Your task to perform on an android device: snooze an email in the gmail app Image 0: 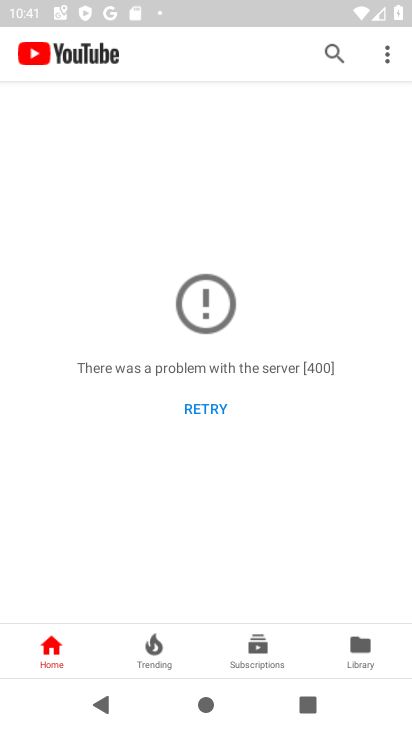
Step 0: press home button
Your task to perform on an android device: snooze an email in the gmail app Image 1: 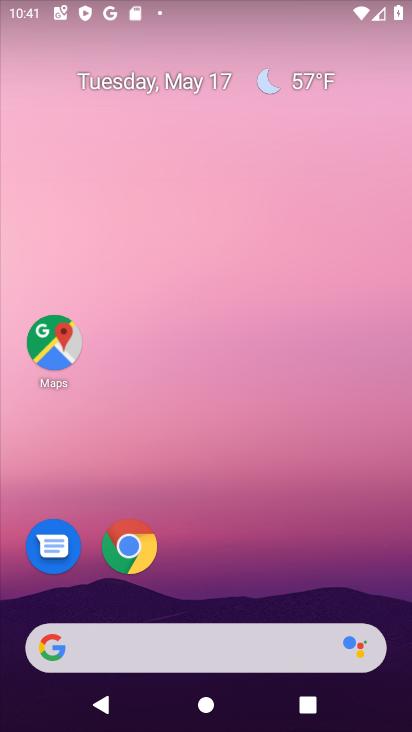
Step 1: drag from (172, 619) to (237, 90)
Your task to perform on an android device: snooze an email in the gmail app Image 2: 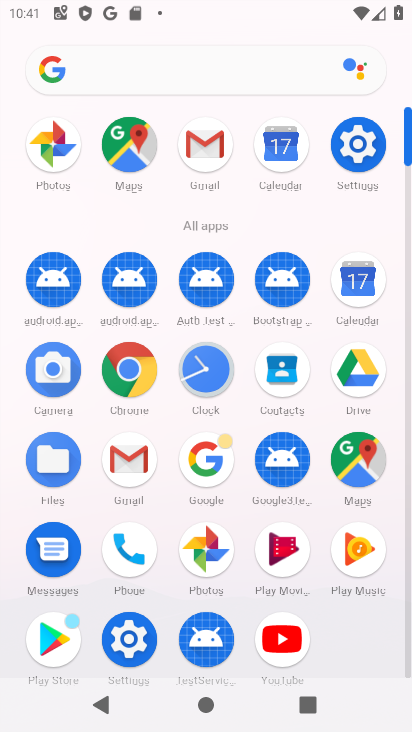
Step 2: click (129, 459)
Your task to perform on an android device: snooze an email in the gmail app Image 3: 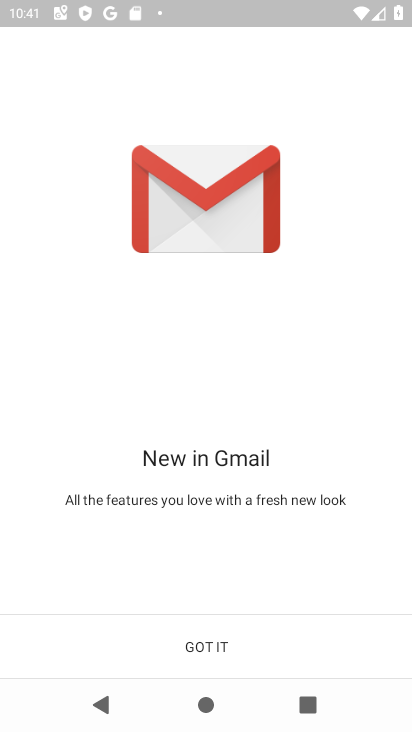
Step 3: click (221, 663)
Your task to perform on an android device: snooze an email in the gmail app Image 4: 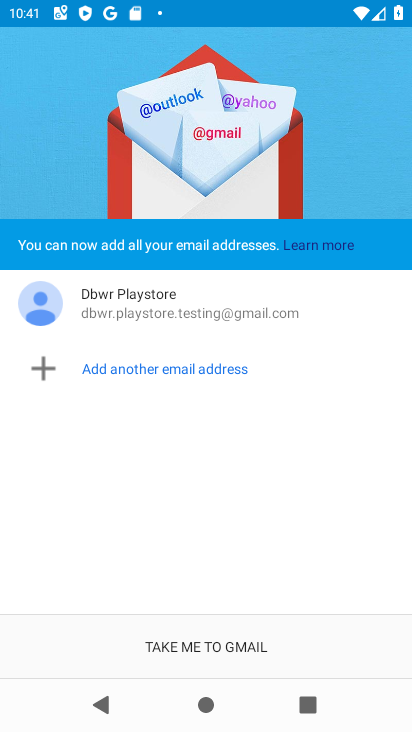
Step 4: click (221, 663)
Your task to perform on an android device: snooze an email in the gmail app Image 5: 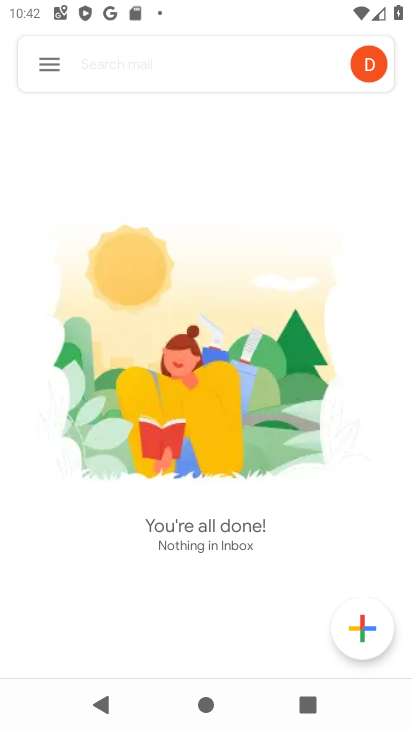
Step 5: click (56, 63)
Your task to perform on an android device: snooze an email in the gmail app Image 6: 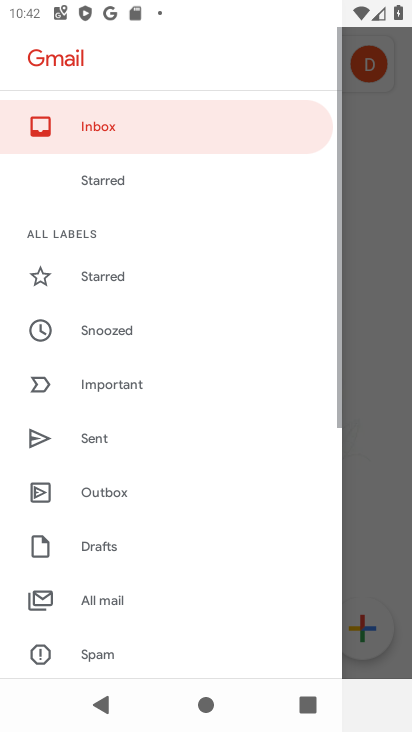
Step 6: drag from (153, 618) to (236, 410)
Your task to perform on an android device: snooze an email in the gmail app Image 7: 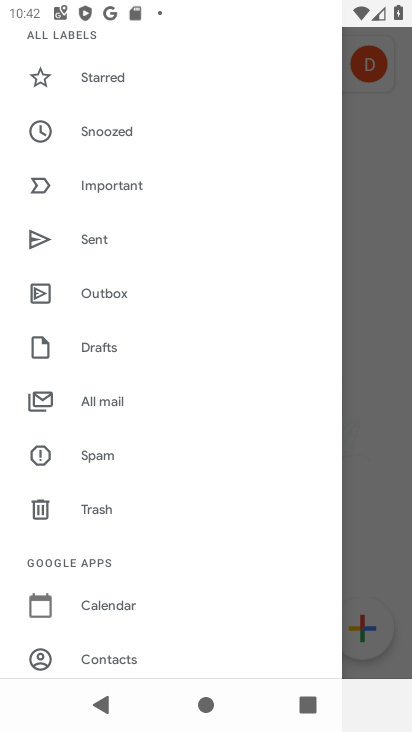
Step 7: click (139, 398)
Your task to perform on an android device: snooze an email in the gmail app Image 8: 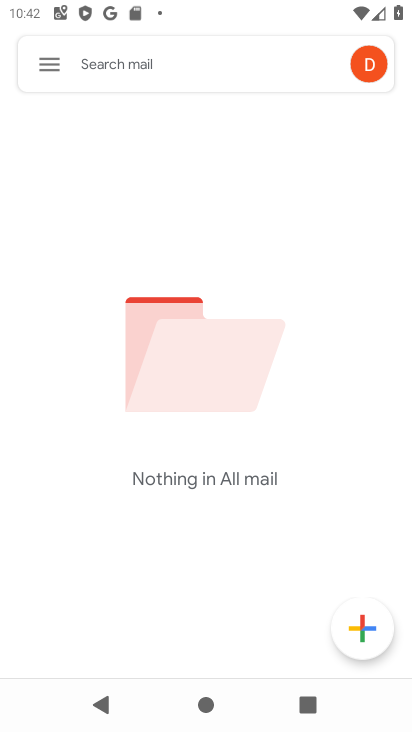
Step 8: task complete